Your task to perform on an android device: Open calendar and show me the first week of next month Image 0: 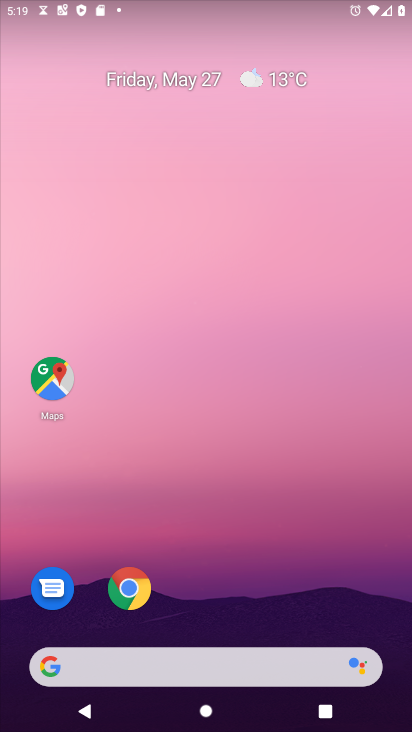
Step 0: drag from (228, 478) to (255, 145)
Your task to perform on an android device: Open calendar and show me the first week of next month Image 1: 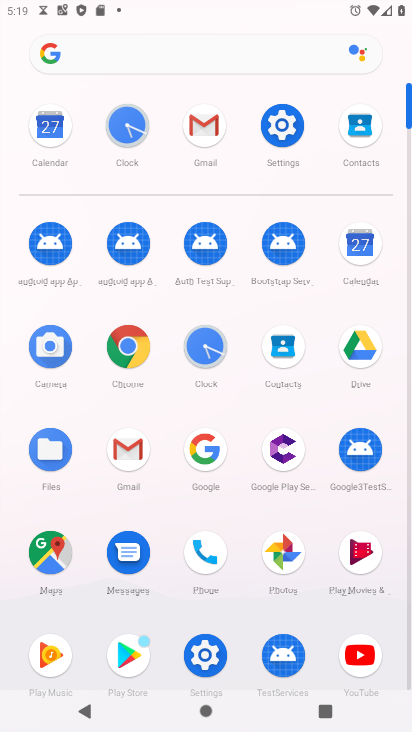
Step 1: click (365, 250)
Your task to perform on an android device: Open calendar and show me the first week of next month Image 2: 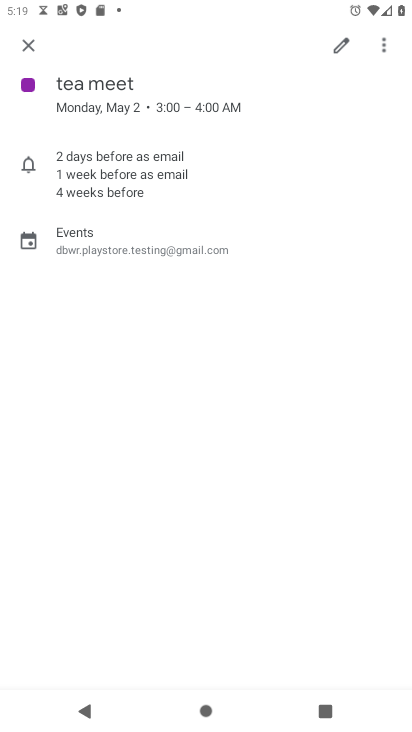
Step 2: click (22, 43)
Your task to perform on an android device: Open calendar and show me the first week of next month Image 3: 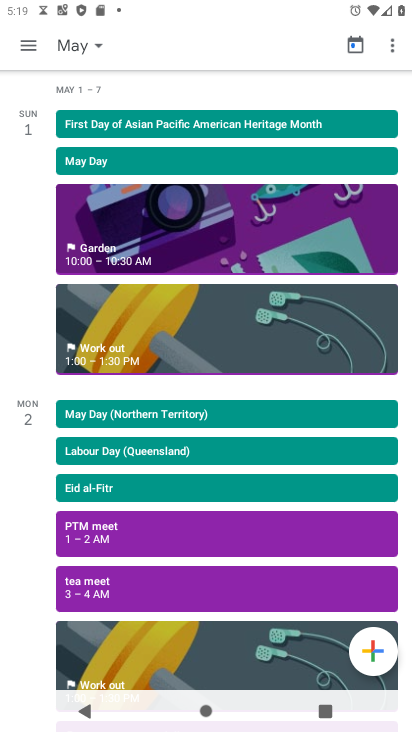
Step 3: click (75, 46)
Your task to perform on an android device: Open calendar and show me the first week of next month Image 4: 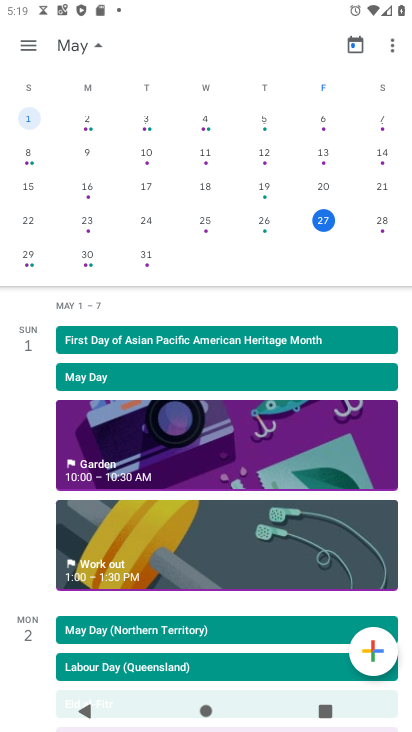
Step 4: task complete